Your task to perform on an android device: Open calendar and show me the second week of next month Image 0: 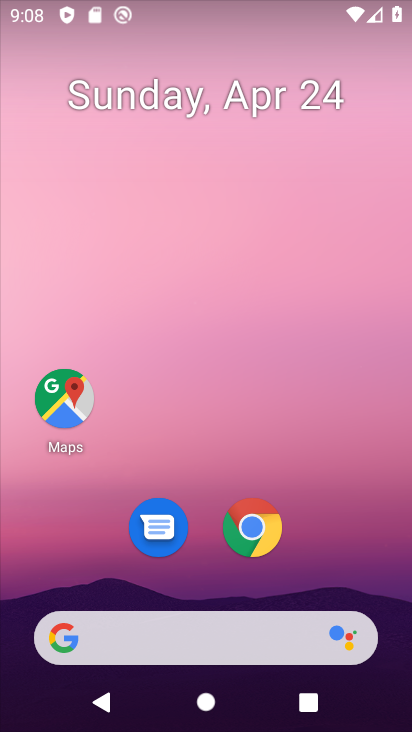
Step 0: drag from (92, 529) to (187, 27)
Your task to perform on an android device: Open calendar and show me the second week of next month Image 1: 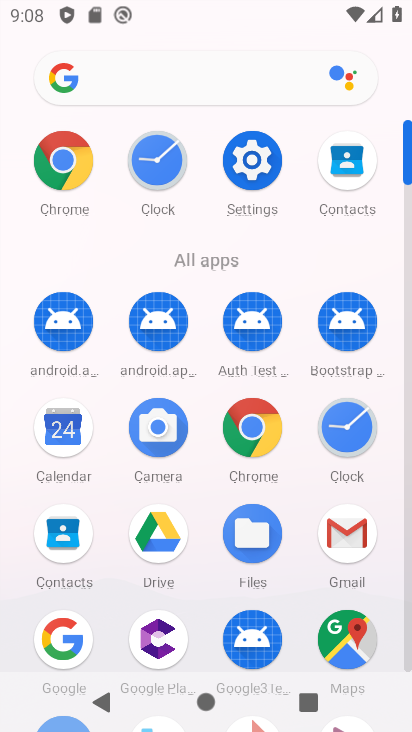
Step 1: click (65, 408)
Your task to perform on an android device: Open calendar and show me the second week of next month Image 2: 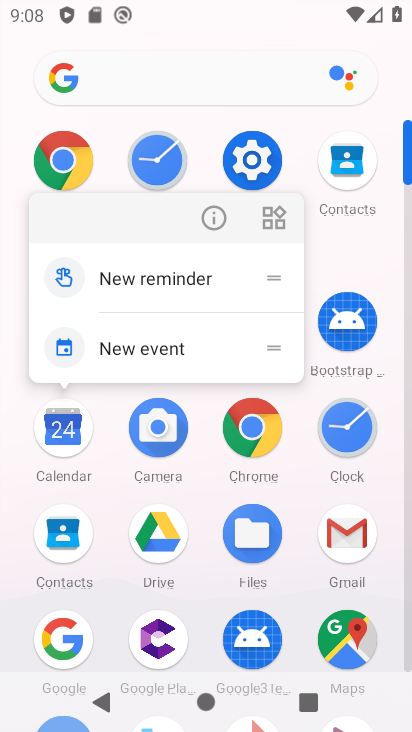
Step 2: click (56, 432)
Your task to perform on an android device: Open calendar and show me the second week of next month Image 3: 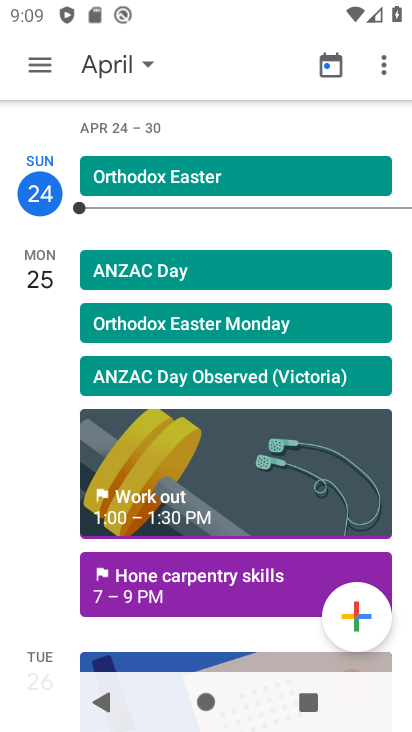
Step 3: click (132, 60)
Your task to perform on an android device: Open calendar and show me the second week of next month Image 4: 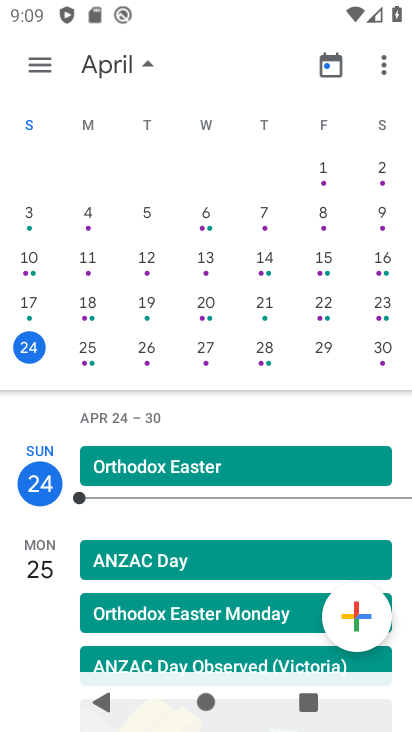
Step 4: drag from (391, 276) to (6, 269)
Your task to perform on an android device: Open calendar and show me the second week of next month Image 5: 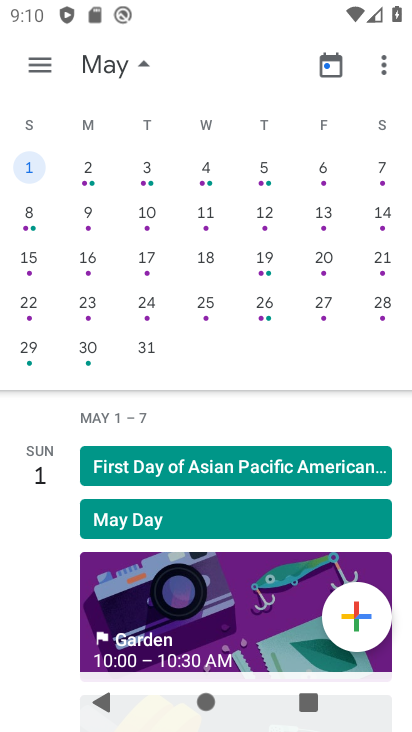
Step 5: click (83, 211)
Your task to perform on an android device: Open calendar and show me the second week of next month Image 6: 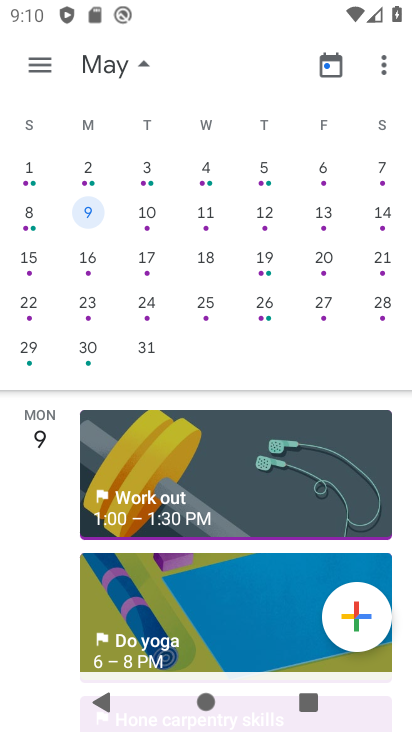
Step 6: task complete